Your task to perform on an android device: toggle translation in the chrome app Image 0: 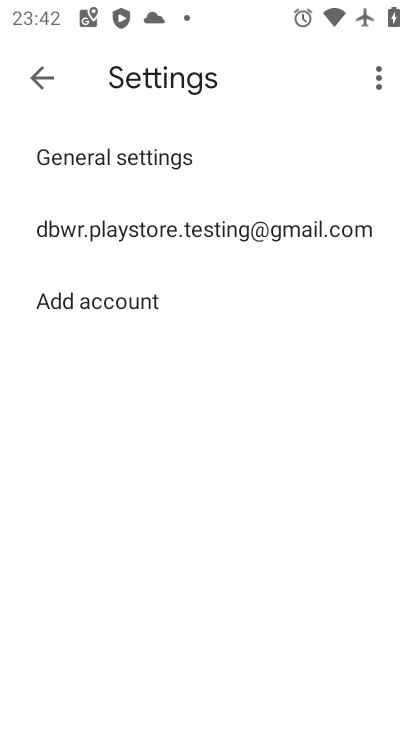
Step 0: press home button
Your task to perform on an android device: toggle translation in the chrome app Image 1: 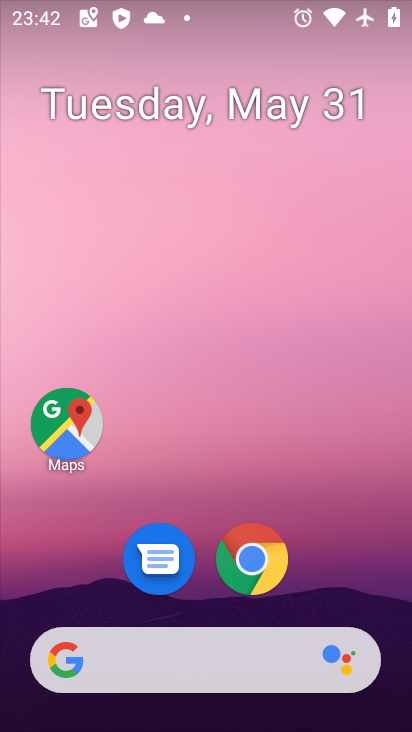
Step 1: click (259, 552)
Your task to perform on an android device: toggle translation in the chrome app Image 2: 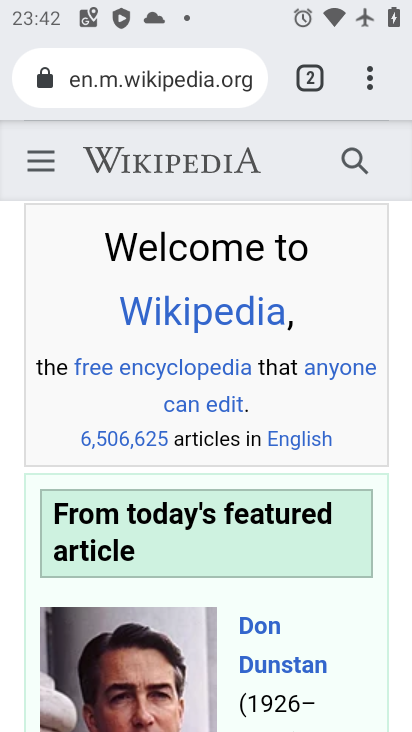
Step 2: click (369, 84)
Your task to perform on an android device: toggle translation in the chrome app Image 3: 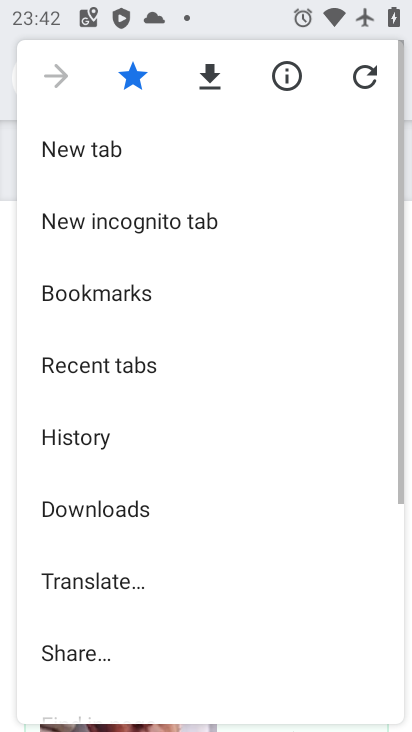
Step 3: drag from (196, 606) to (189, 101)
Your task to perform on an android device: toggle translation in the chrome app Image 4: 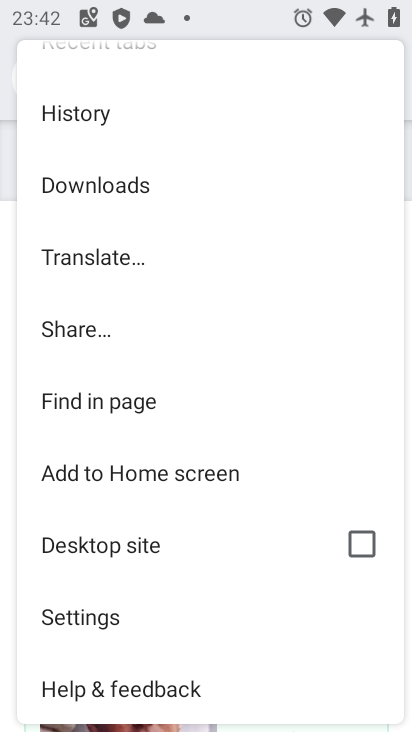
Step 4: click (101, 610)
Your task to perform on an android device: toggle translation in the chrome app Image 5: 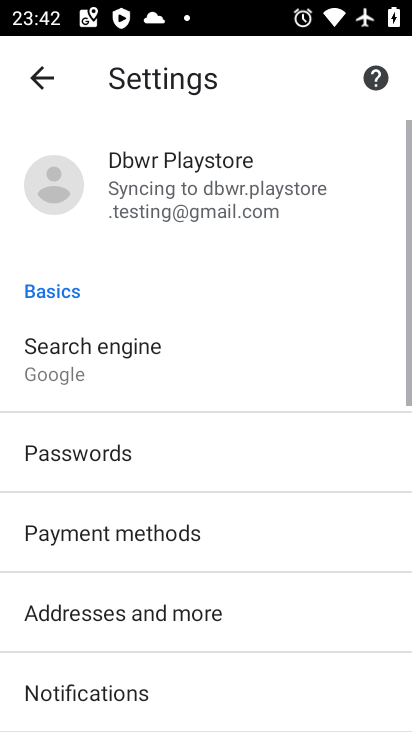
Step 5: drag from (212, 605) to (226, 54)
Your task to perform on an android device: toggle translation in the chrome app Image 6: 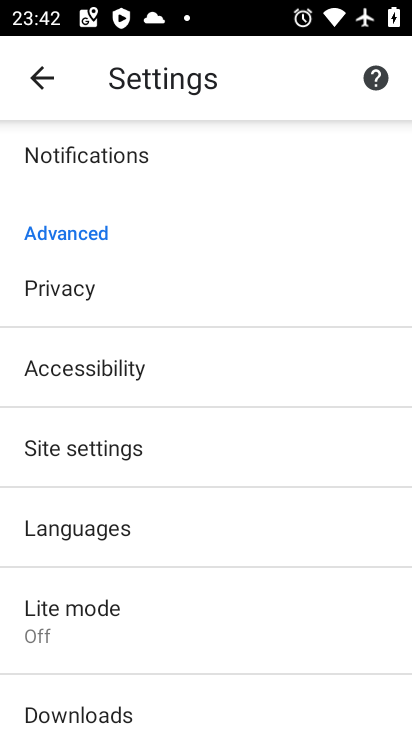
Step 6: click (106, 539)
Your task to perform on an android device: toggle translation in the chrome app Image 7: 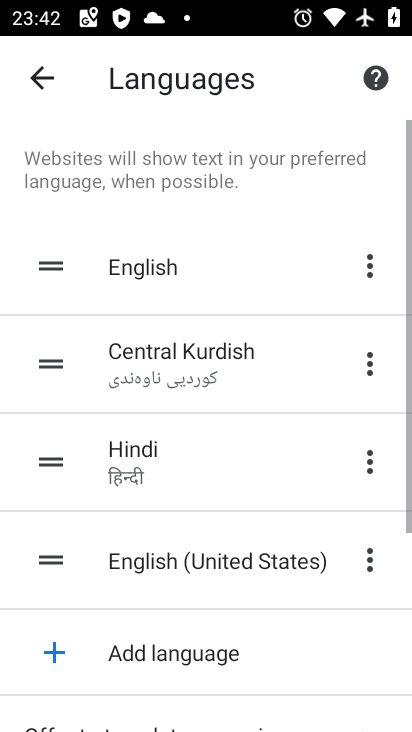
Step 7: drag from (265, 679) to (293, 217)
Your task to perform on an android device: toggle translation in the chrome app Image 8: 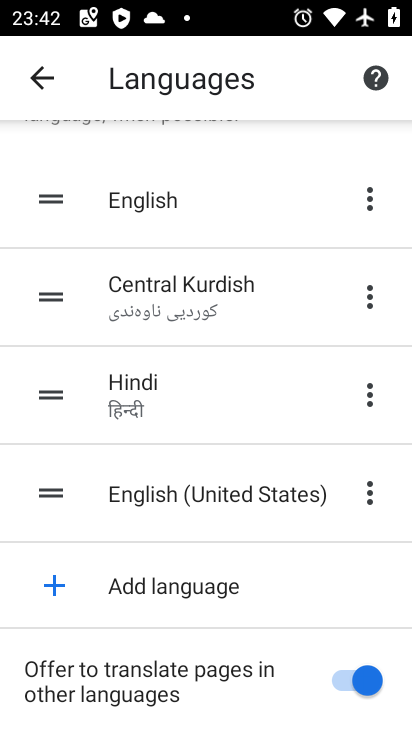
Step 8: click (364, 667)
Your task to perform on an android device: toggle translation in the chrome app Image 9: 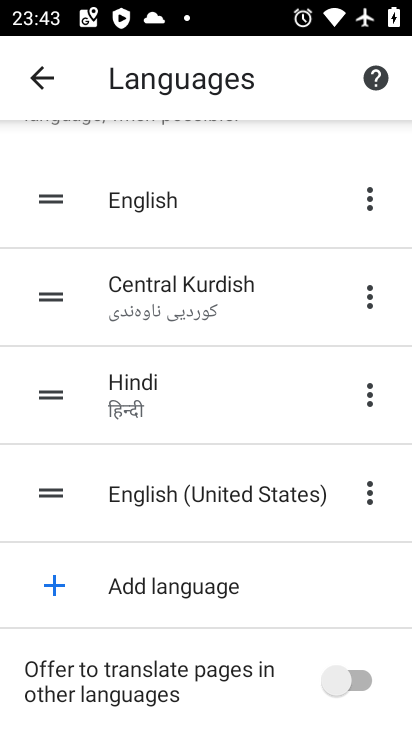
Step 9: task complete